Your task to perform on an android device: Go to CNN.com Image 0: 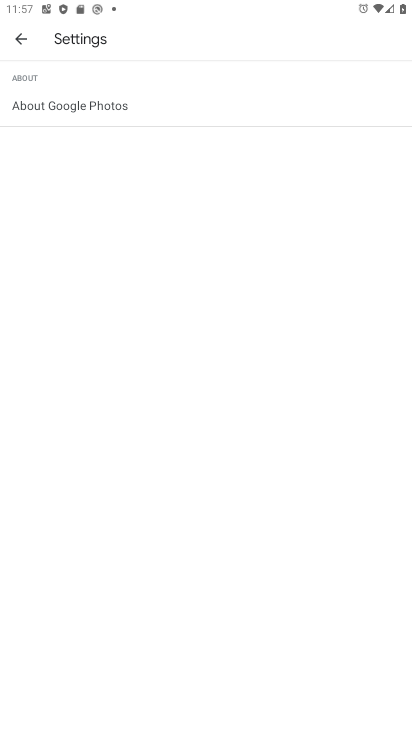
Step 0: press home button
Your task to perform on an android device: Go to CNN.com Image 1: 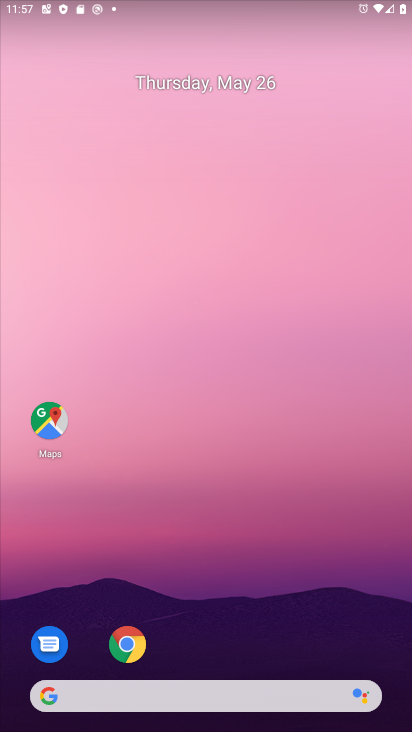
Step 1: click (134, 653)
Your task to perform on an android device: Go to CNN.com Image 2: 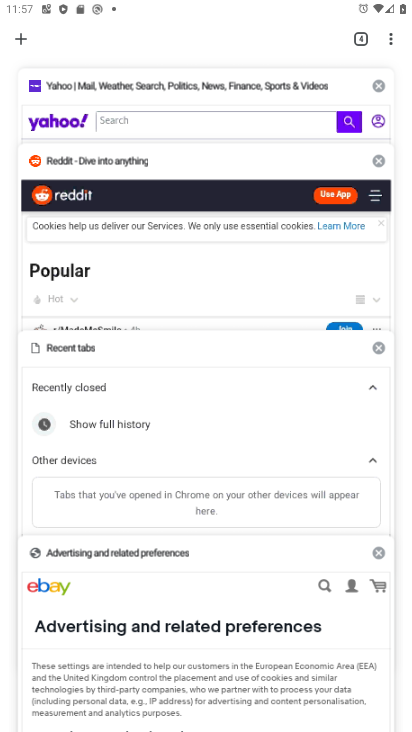
Step 2: click (22, 44)
Your task to perform on an android device: Go to CNN.com Image 3: 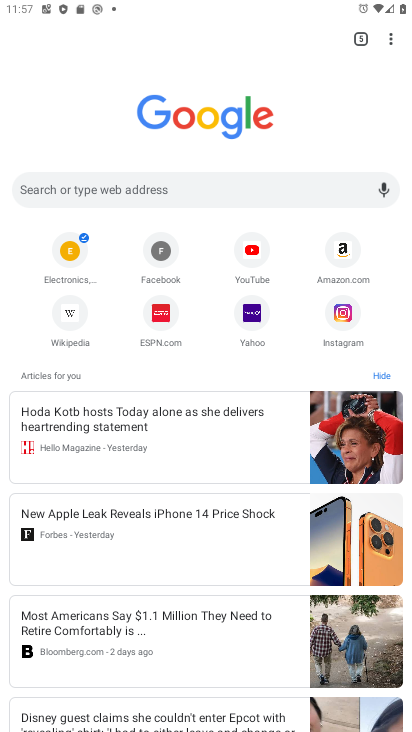
Step 3: click (121, 190)
Your task to perform on an android device: Go to CNN.com Image 4: 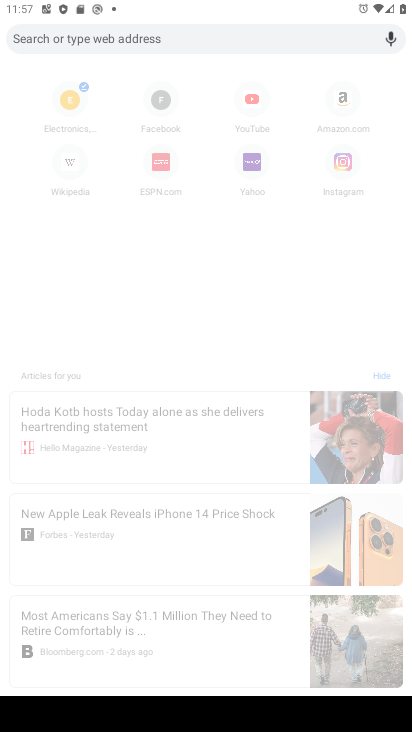
Step 4: type "CNN.com"
Your task to perform on an android device: Go to CNN.com Image 5: 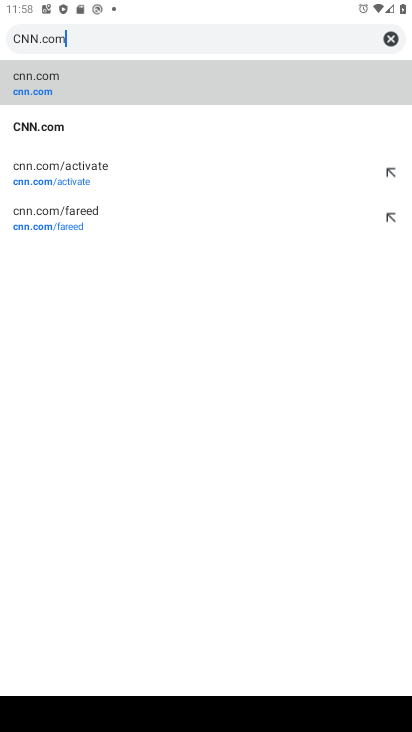
Step 5: click (48, 76)
Your task to perform on an android device: Go to CNN.com Image 6: 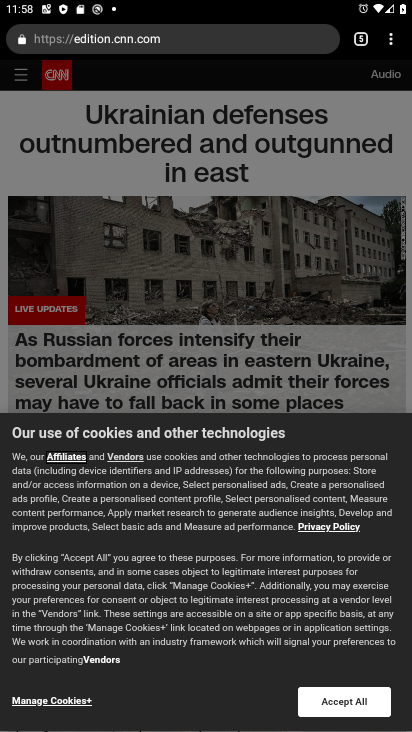
Step 6: task complete